Your task to perform on an android device: turn off wifi Image 0: 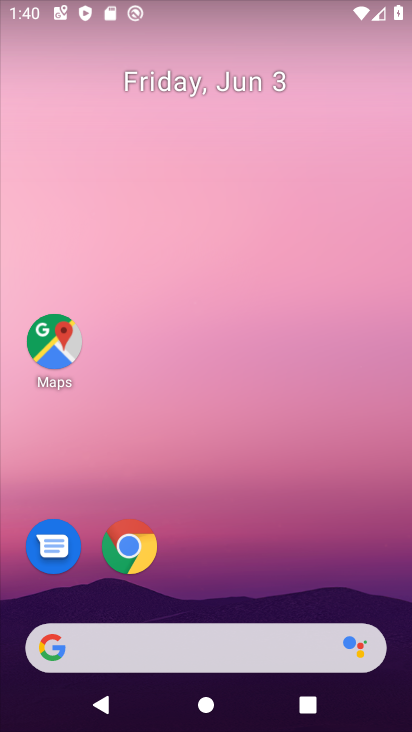
Step 0: drag from (171, 605) to (224, 13)
Your task to perform on an android device: turn off wifi Image 1: 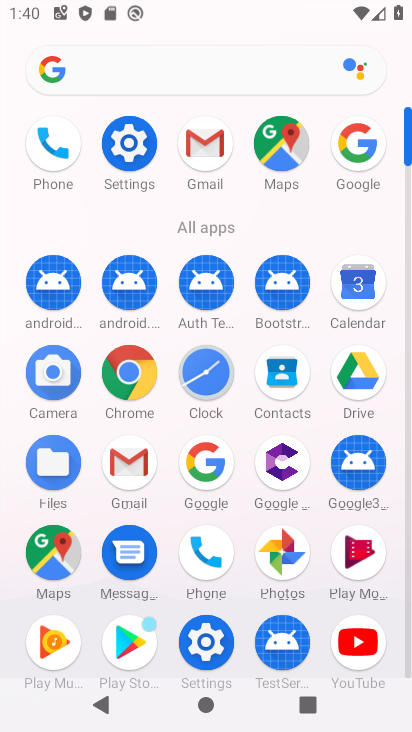
Step 1: click (118, 150)
Your task to perform on an android device: turn off wifi Image 2: 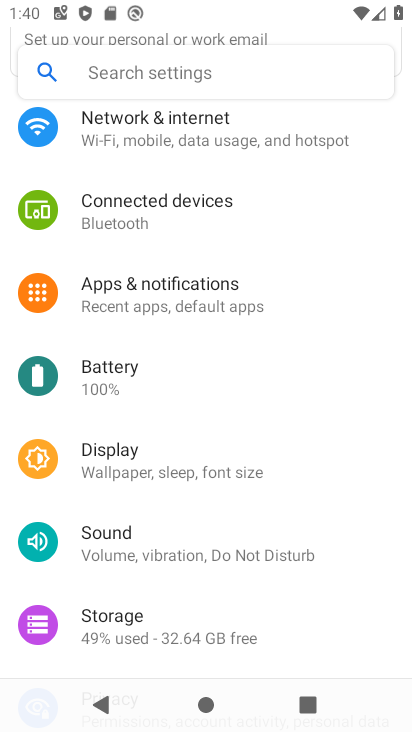
Step 2: drag from (92, 225) to (117, 706)
Your task to perform on an android device: turn off wifi Image 3: 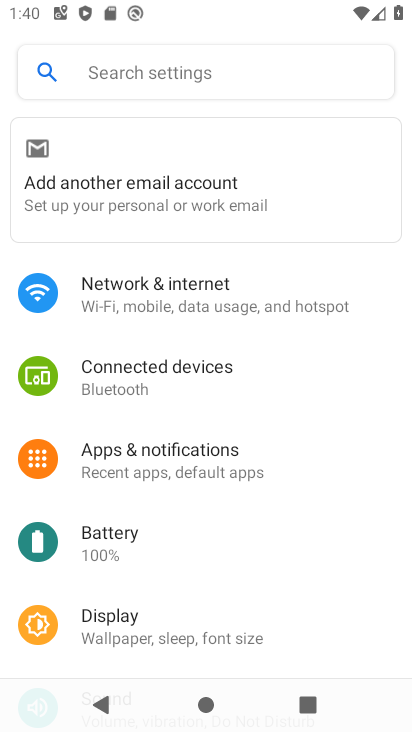
Step 3: click (142, 297)
Your task to perform on an android device: turn off wifi Image 4: 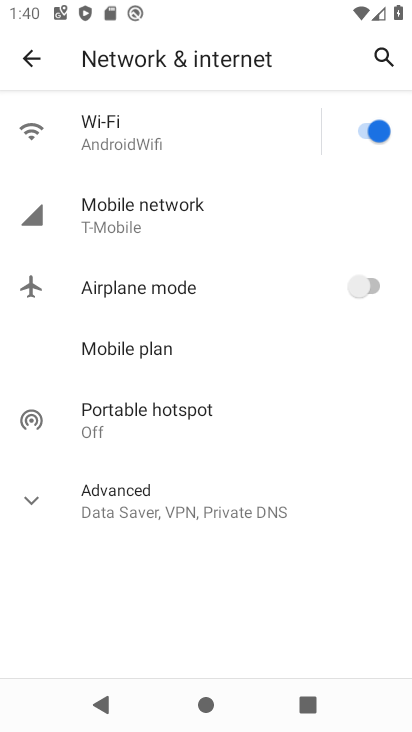
Step 4: click (366, 138)
Your task to perform on an android device: turn off wifi Image 5: 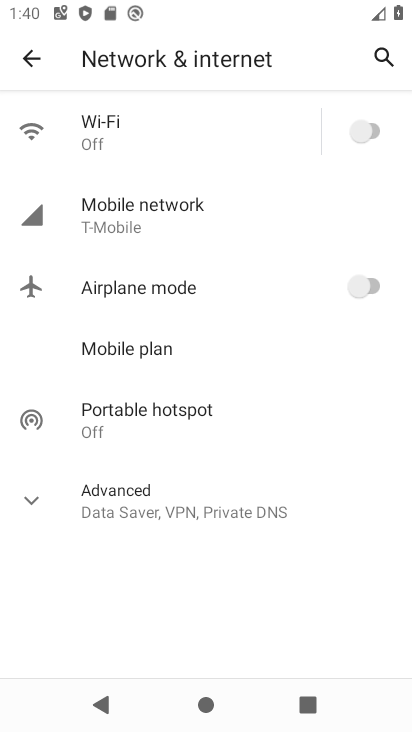
Step 5: task complete